Your task to perform on an android device: What's the weather today? Image 0: 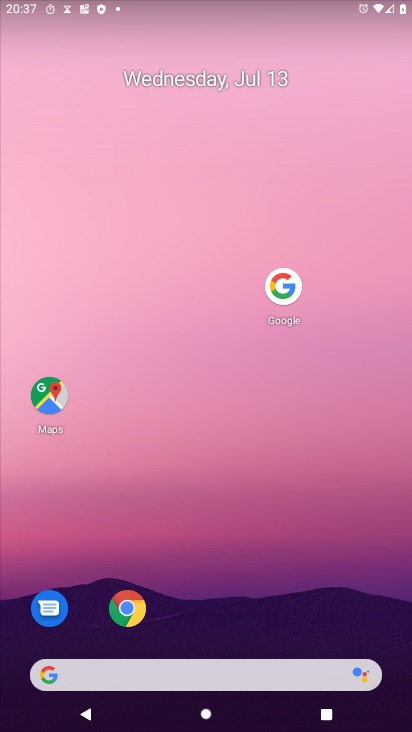
Step 0: drag from (194, 641) to (155, 135)
Your task to perform on an android device: What's the weather today? Image 1: 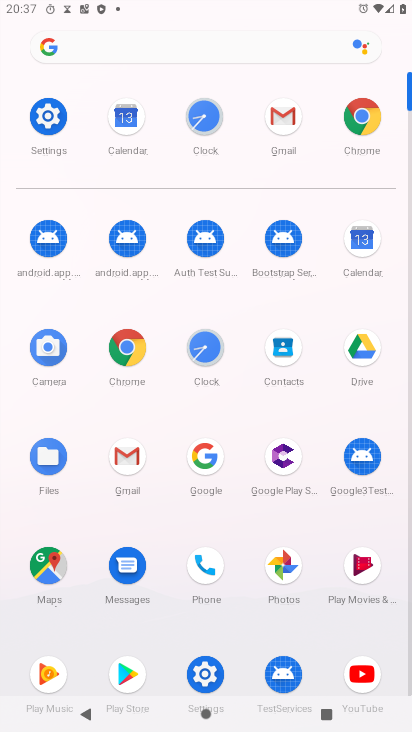
Step 1: click (211, 461)
Your task to perform on an android device: What's the weather today? Image 2: 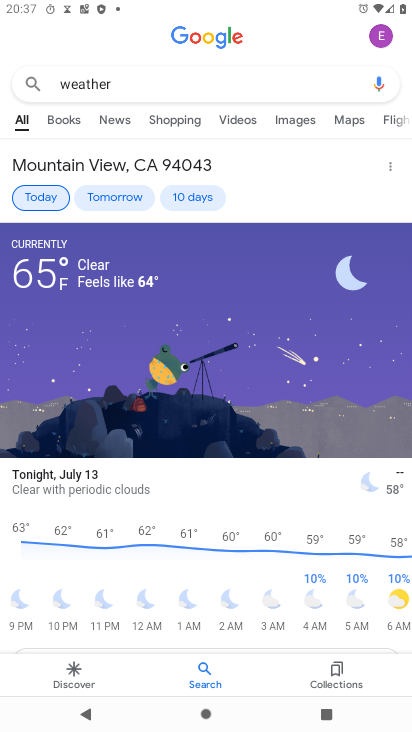
Step 2: click (0, 199)
Your task to perform on an android device: What's the weather today? Image 3: 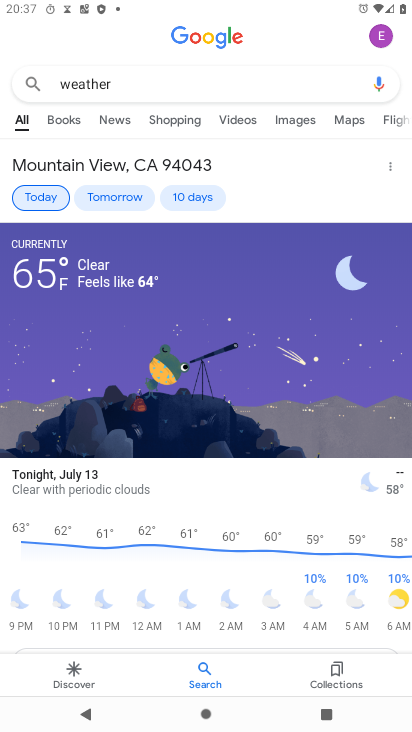
Step 3: click (40, 203)
Your task to perform on an android device: What's the weather today? Image 4: 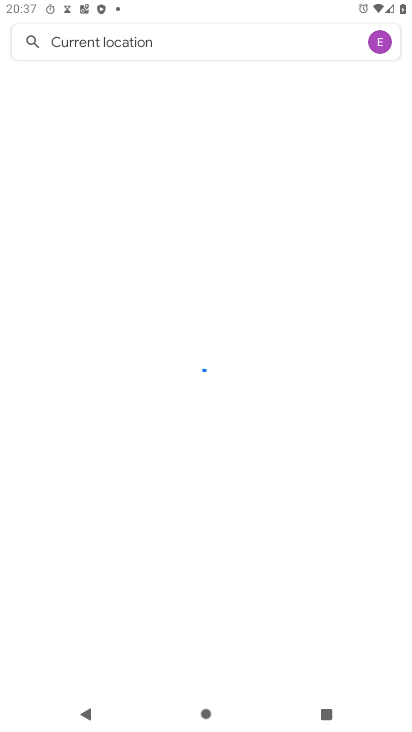
Step 4: task complete